Your task to perform on an android device: Go to location settings Image 0: 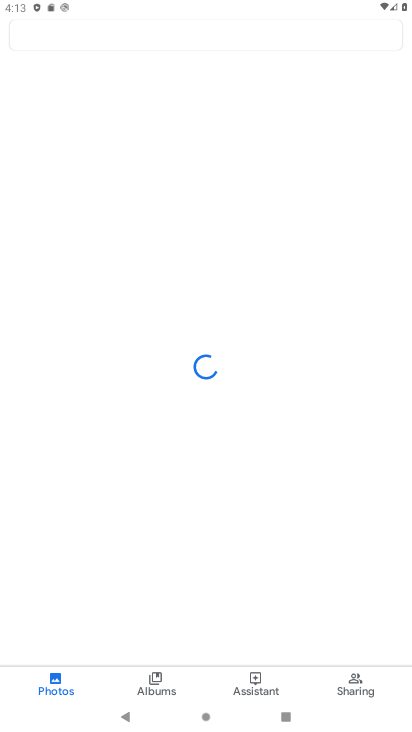
Step 0: press home button
Your task to perform on an android device: Go to location settings Image 1: 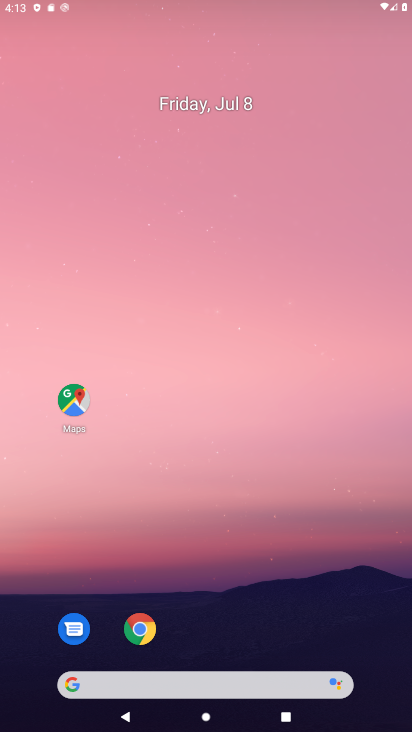
Step 1: drag from (262, 713) to (251, 159)
Your task to perform on an android device: Go to location settings Image 2: 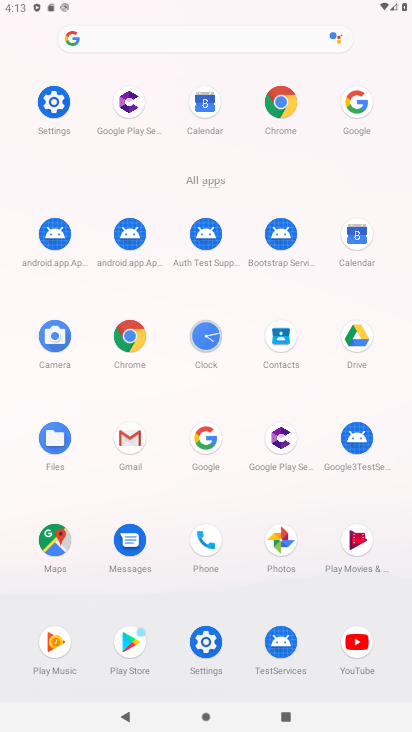
Step 2: click (57, 101)
Your task to perform on an android device: Go to location settings Image 3: 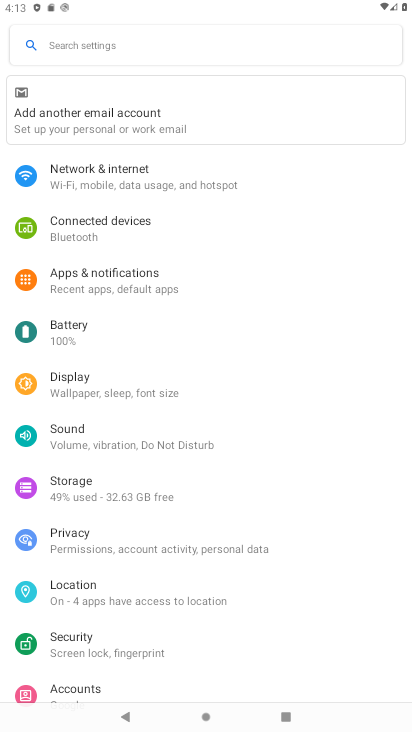
Step 3: click (75, 585)
Your task to perform on an android device: Go to location settings Image 4: 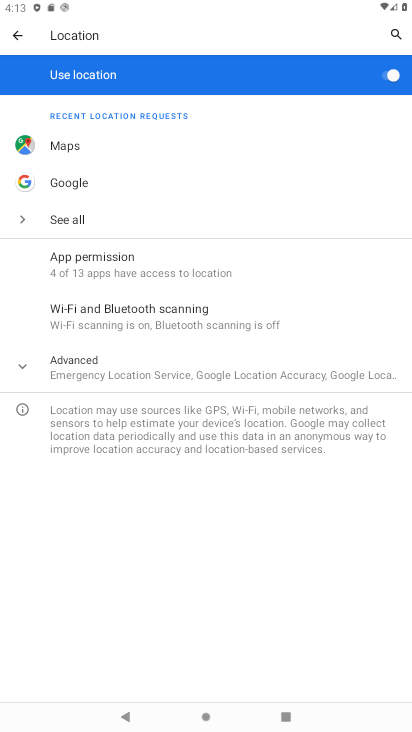
Step 4: task complete